Your task to perform on an android device: see tabs open on other devices in the chrome app Image 0: 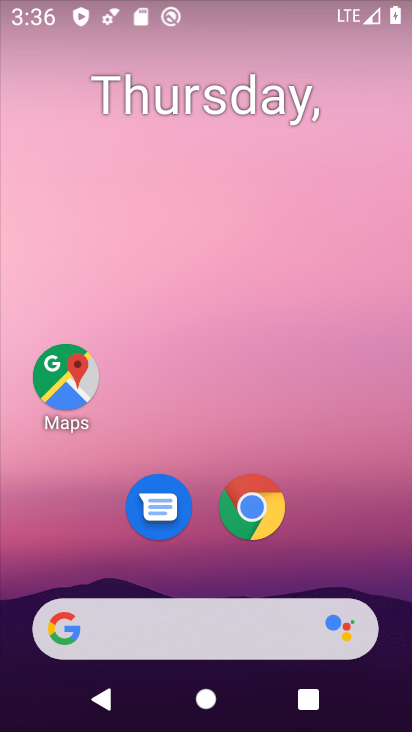
Step 0: press home button
Your task to perform on an android device: see tabs open on other devices in the chrome app Image 1: 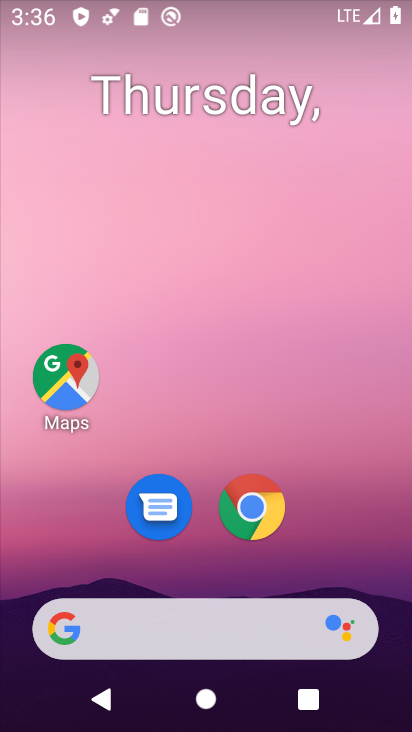
Step 1: drag from (338, 533) to (323, 233)
Your task to perform on an android device: see tabs open on other devices in the chrome app Image 2: 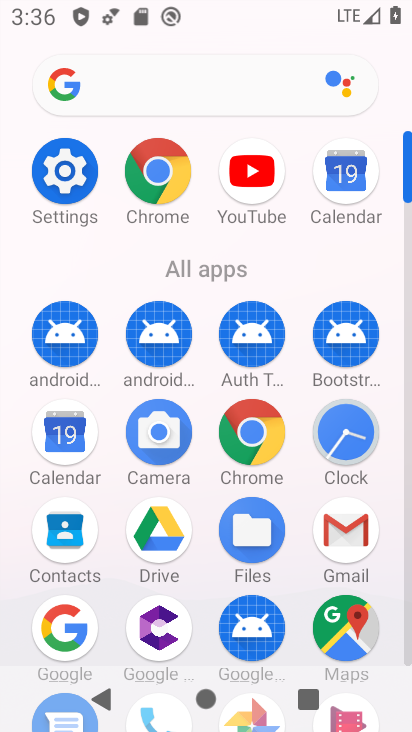
Step 2: click (136, 173)
Your task to perform on an android device: see tabs open on other devices in the chrome app Image 3: 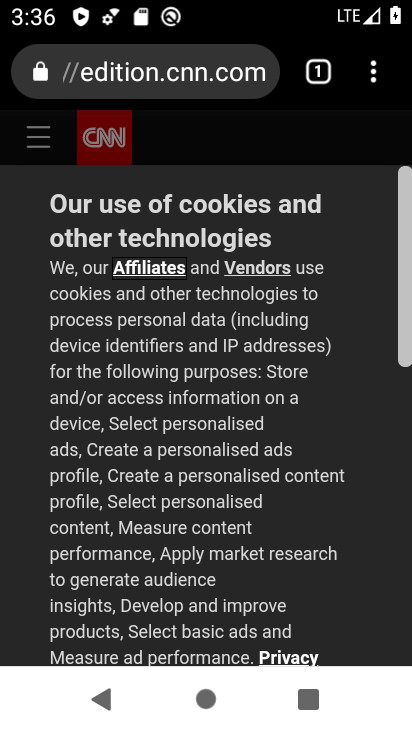
Step 3: click (155, 83)
Your task to perform on an android device: see tabs open on other devices in the chrome app Image 4: 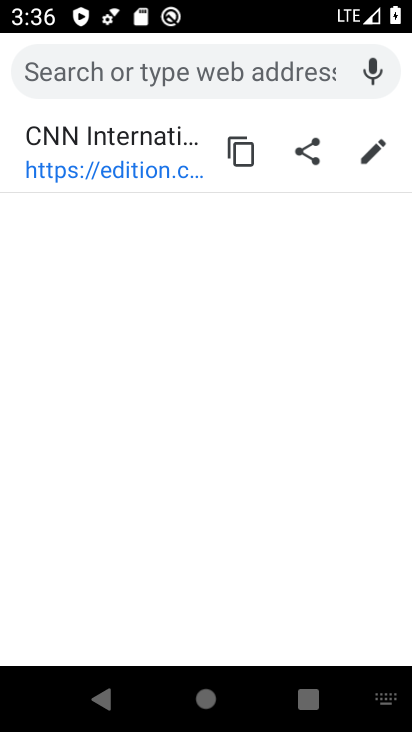
Step 4: press back button
Your task to perform on an android device: see tabs open on other devices in the chrome app Image 5: 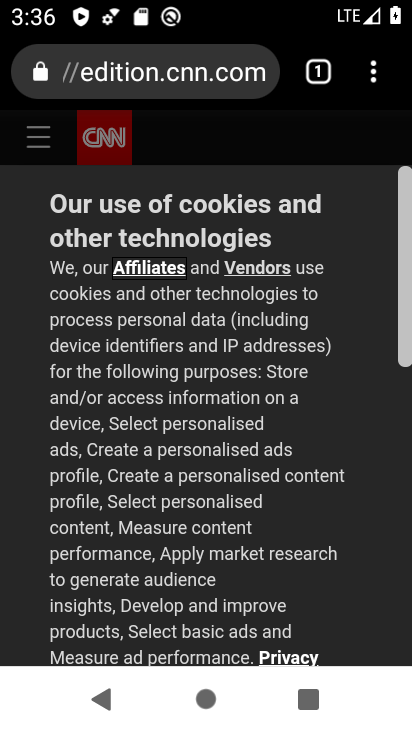
Step 5: drag from (370, 64) to (156, 651)
Your task to perform on an android device: see tabs open on other devices in the chrome app Image 6: 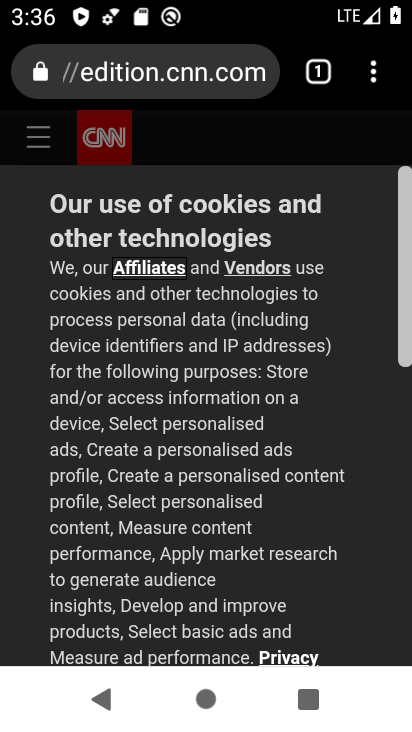
Step 6: drag from (371, 80) to (137, 498)
Your task to perform on an android device: see tabs open on other devices in the chrome app Image 7: 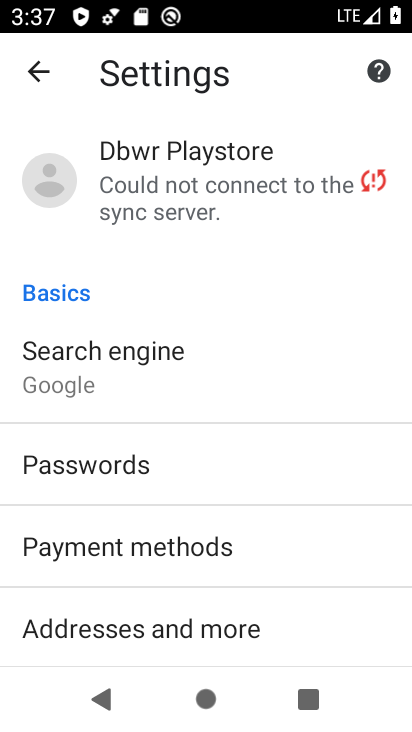
Step 7: click (42, 54)
Your task to perform on an android device: see tabs open on other devices in the chrome app Image 8: 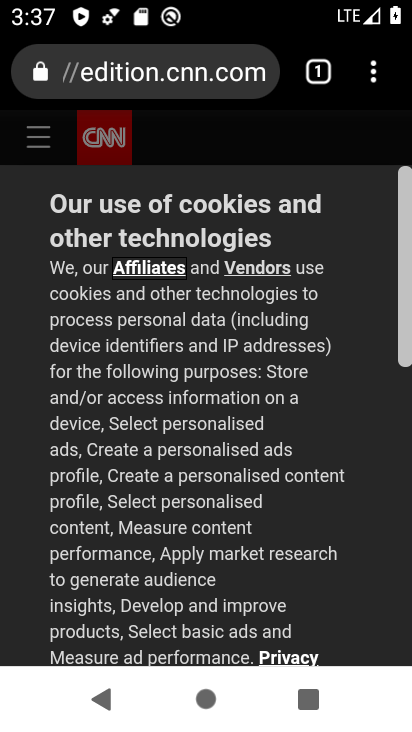
Step 8: task complete